Your task to perform on an android device: See recent photos Image 0: 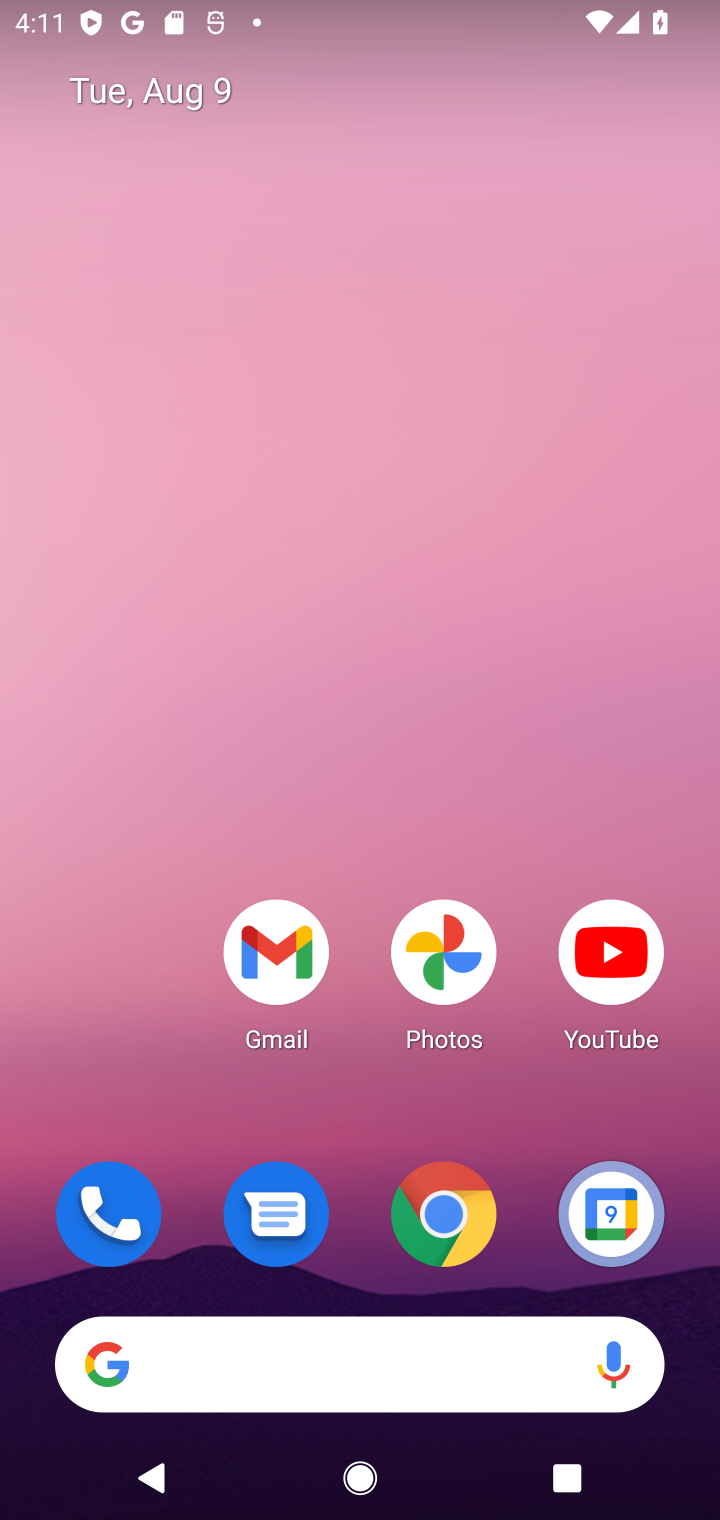
Step 0: drag from (479, 1381) to (641, 330)
Your task to perform on an android device: See recent photos Image 1: 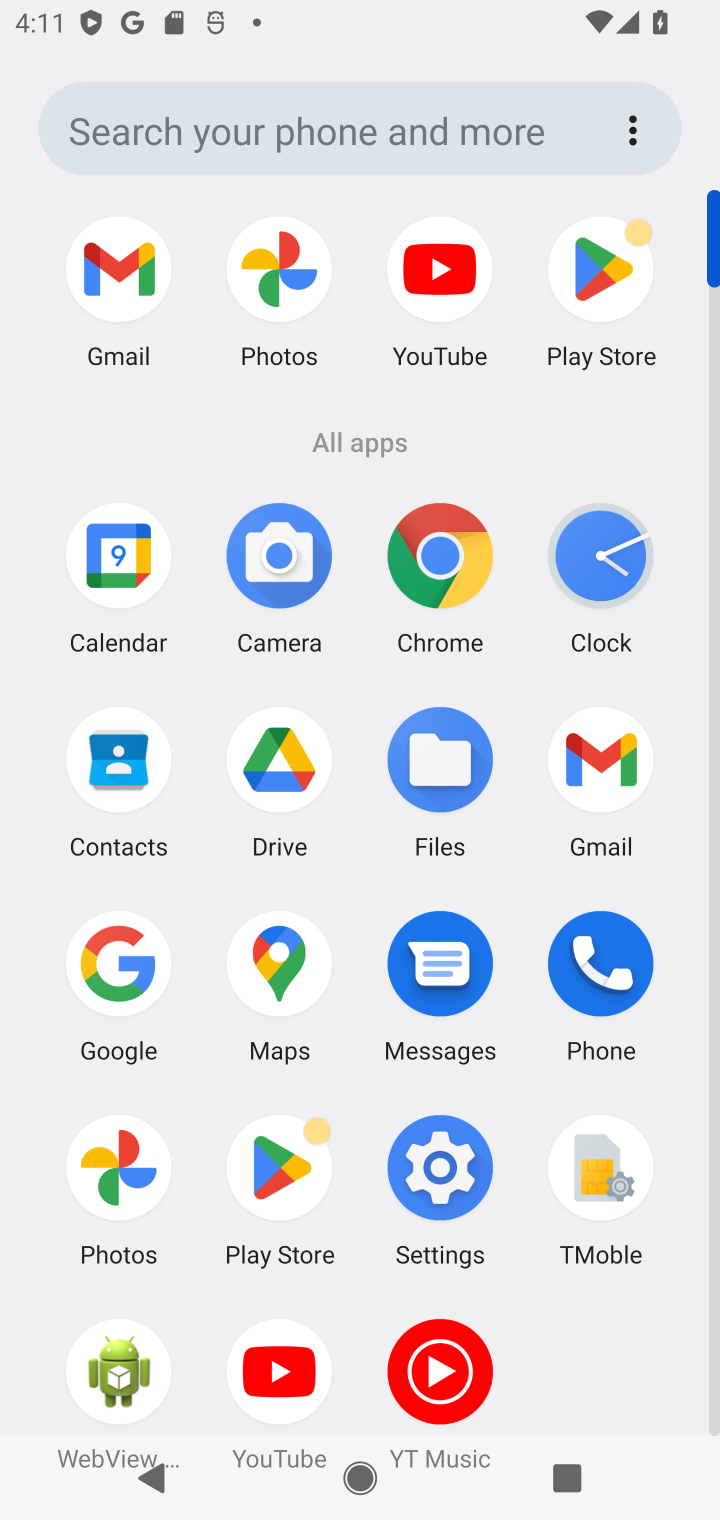
Step 1: click (273, 309)
Your task to perform on an android device: See recent photos Image 2: 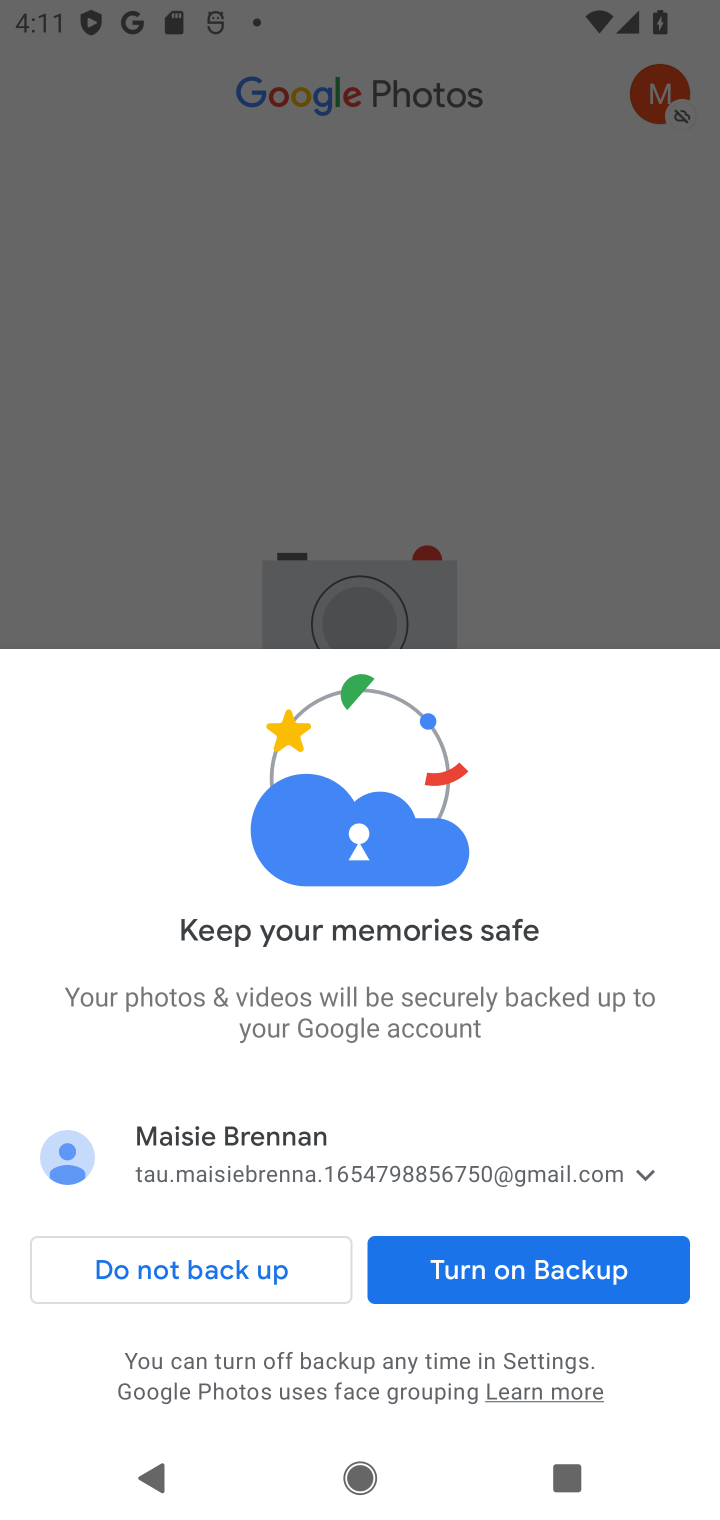
Step 2: click (520, 1263)
Your task to perform on an android device: See recent photos Image 3: 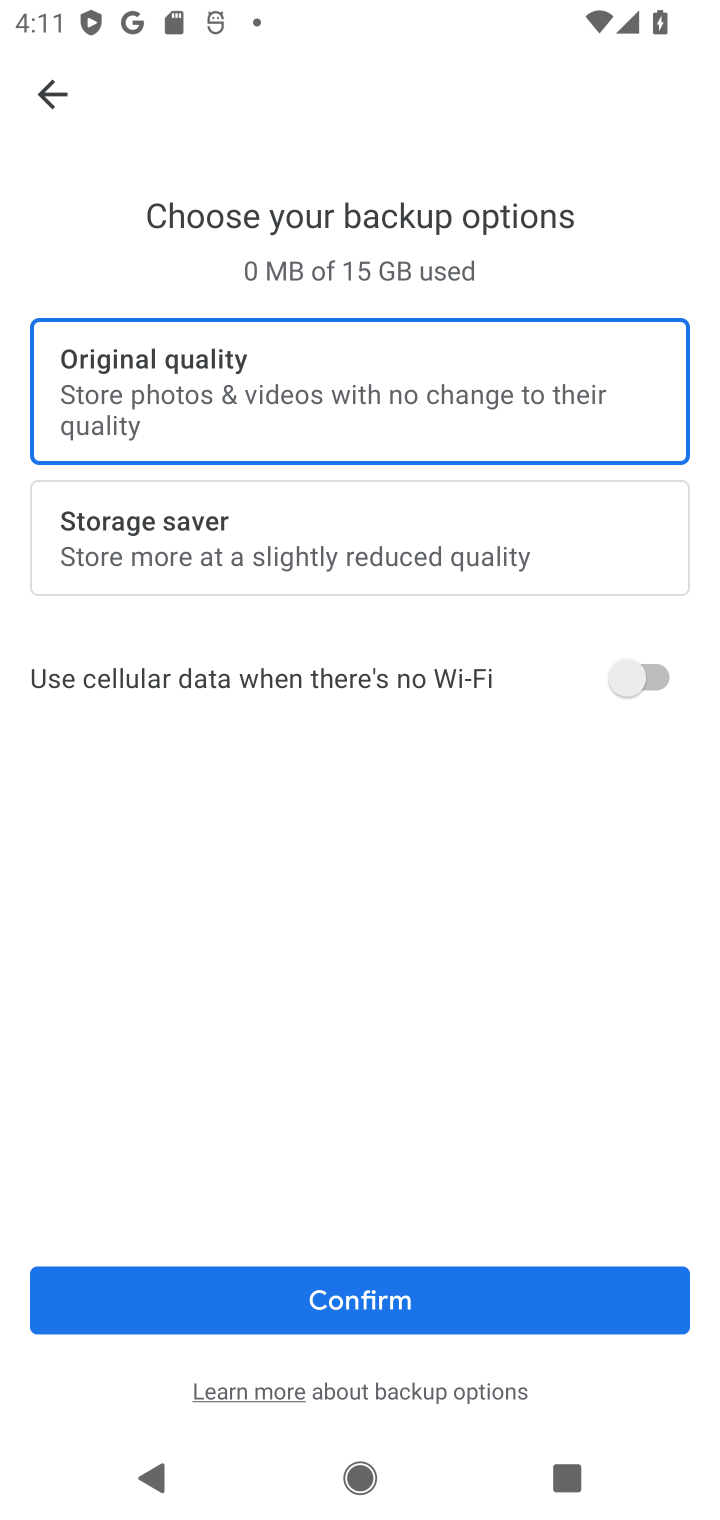
Step 3: click (413, 1299)
Your task to perform on an android device: See recent photos Image 4: 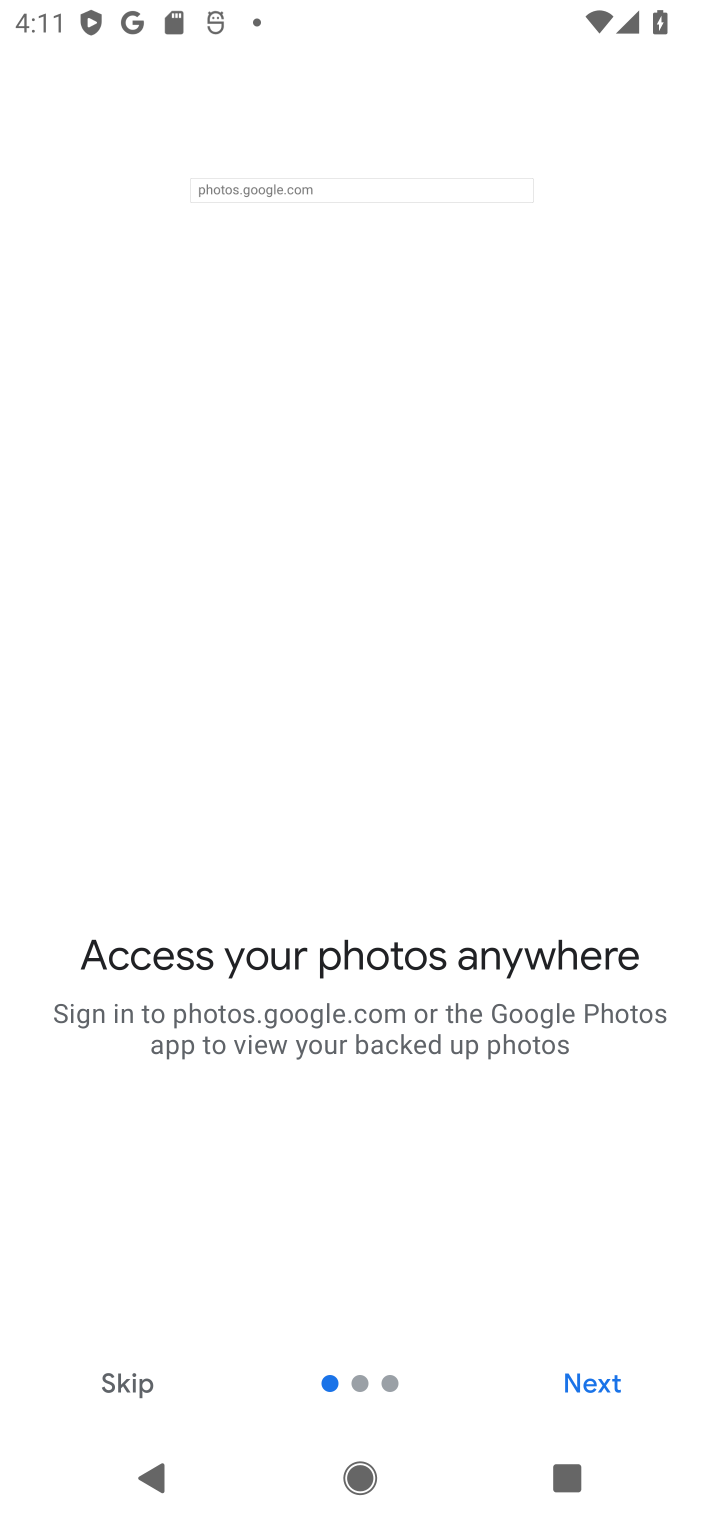
Step 4: click (582, 1374)
Your task to perform on an android device: See recent photos Image 5: 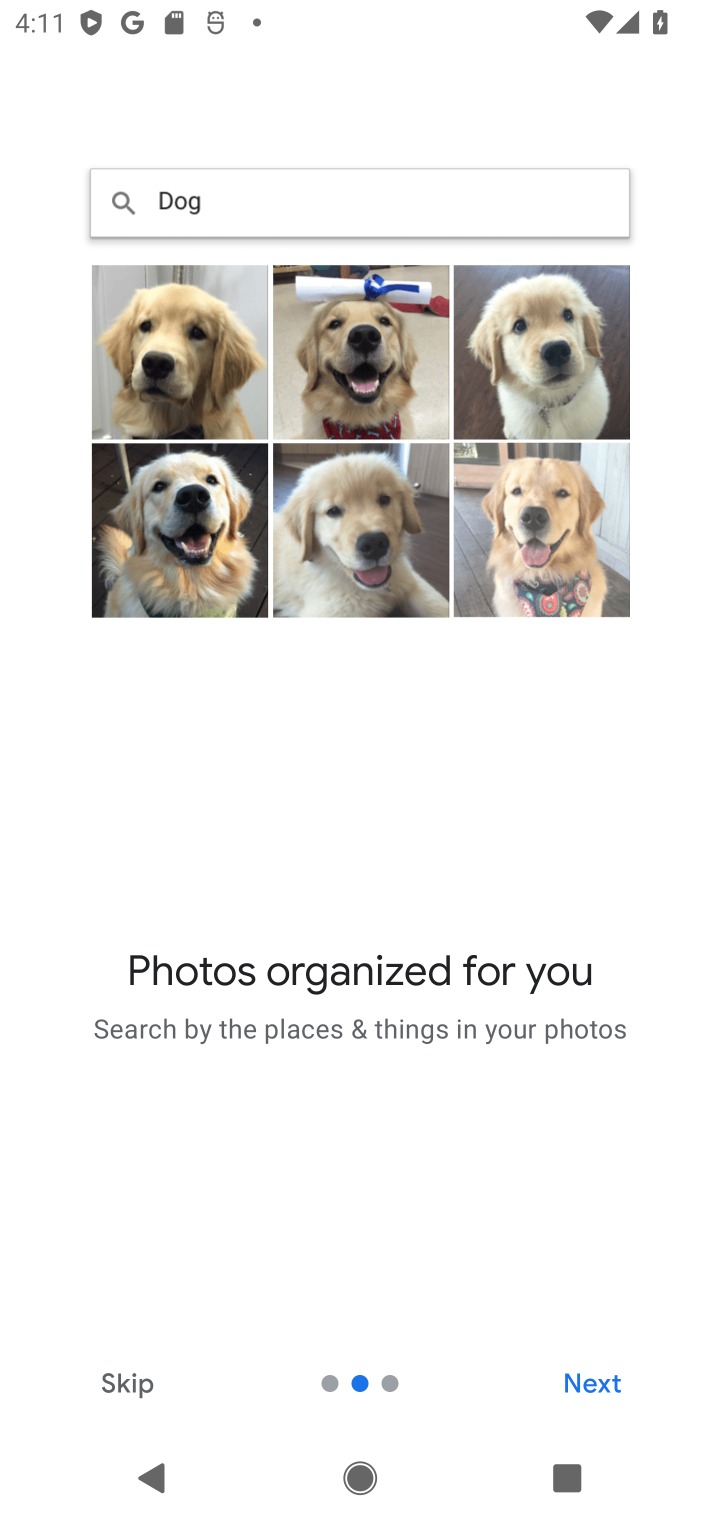
Step 5: click (574, 1390)
Your task to perform on an android device: See recent photos Image 6: 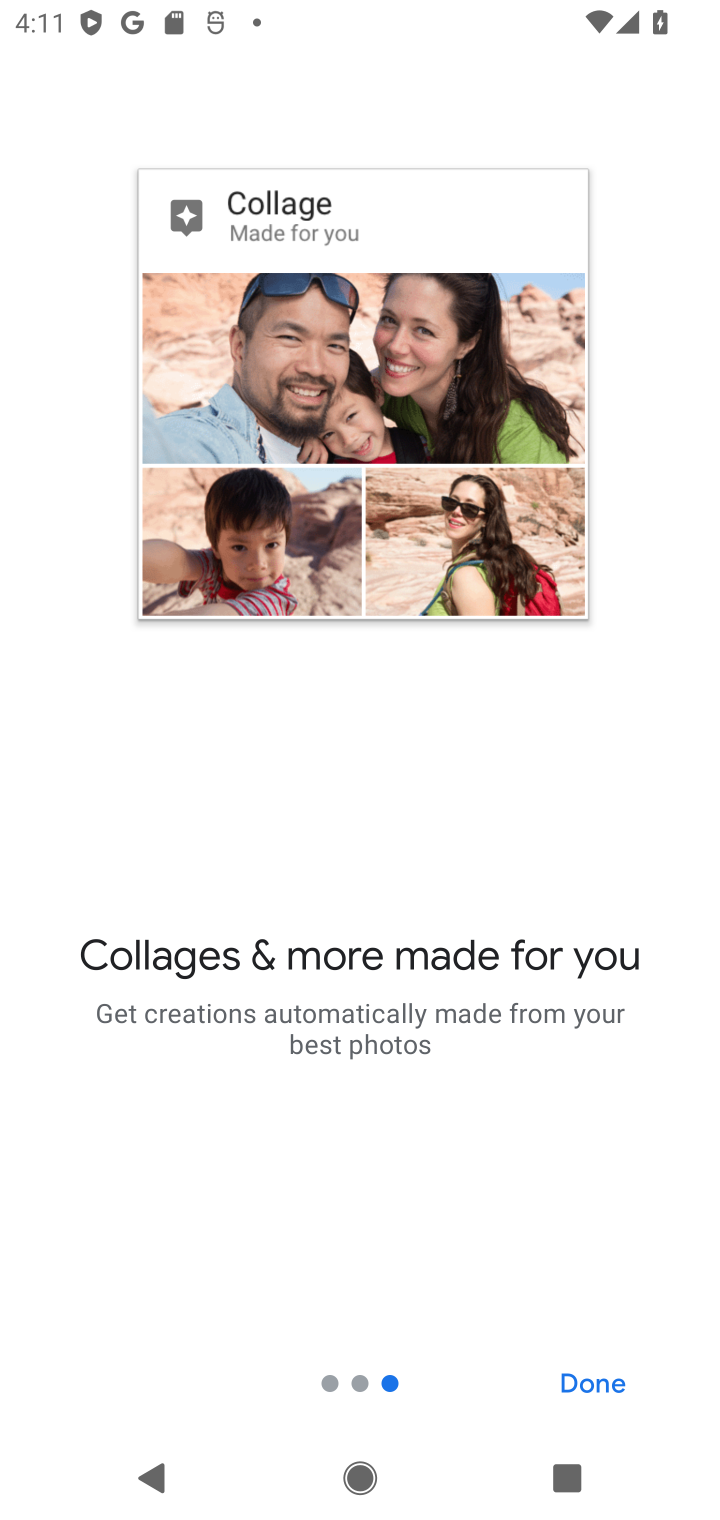
Step 6: click (585, 1386)
Your task to perform on an android device: See recent photos Image 7: 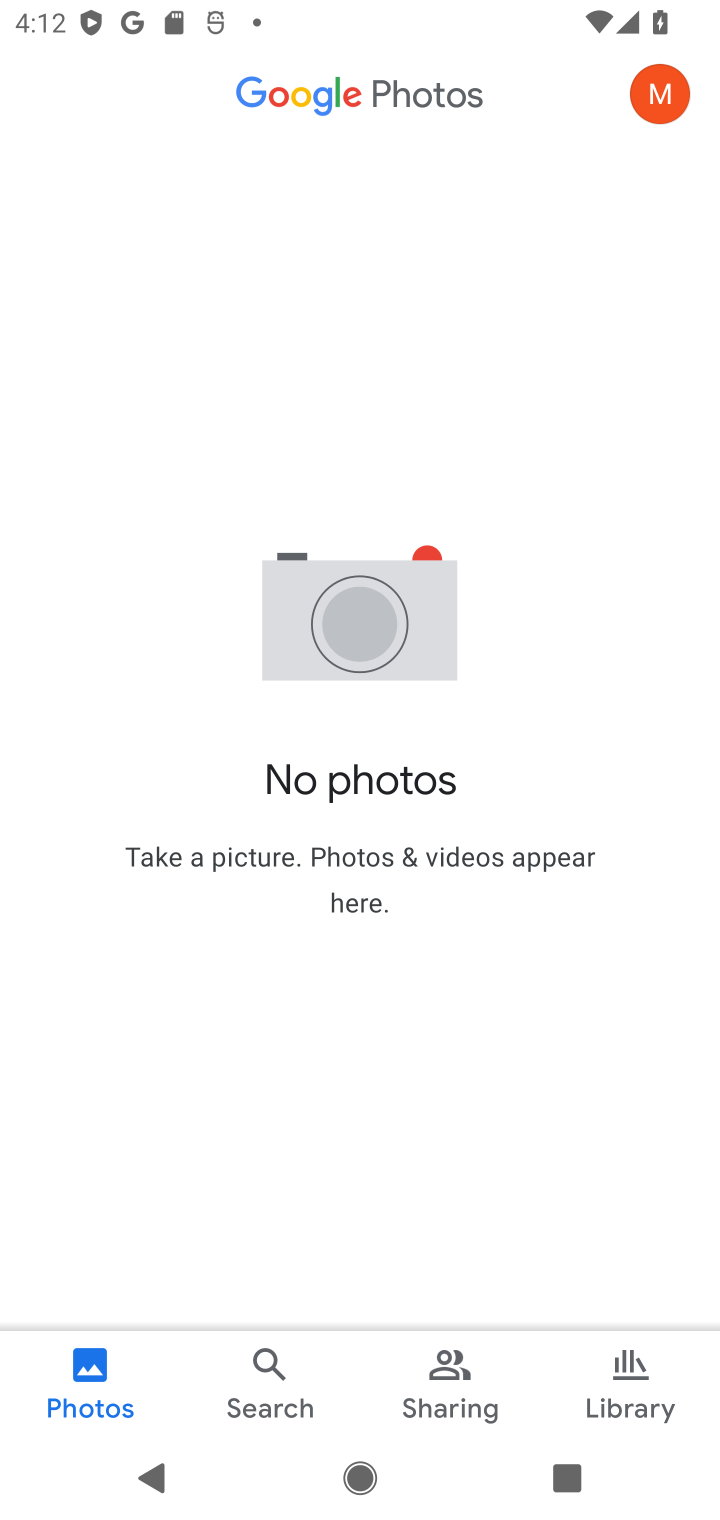
Step 7: task complete